Your task to perform on an android device: Go to battery settings Image 0: 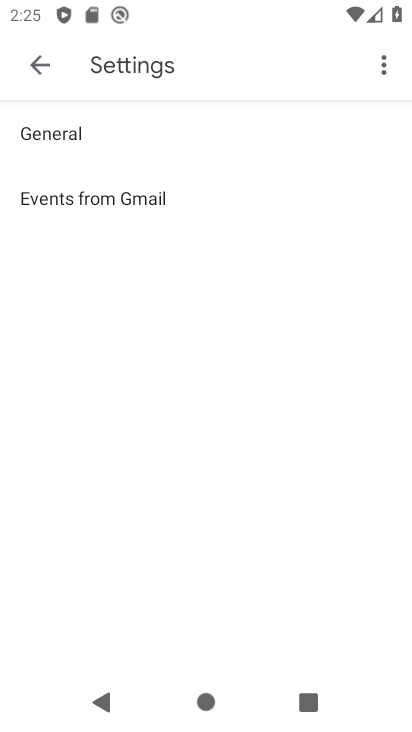
Step 0: press home button
Your task to perform on an android device: Go to battery settings Image 1: 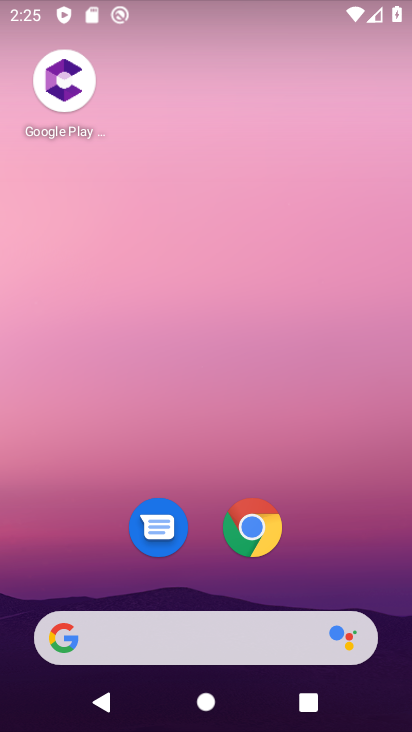
Step 1: drag from (258, 636) to (297, 19)
Your task to perform on an android device: Go to battery settings Image 2: 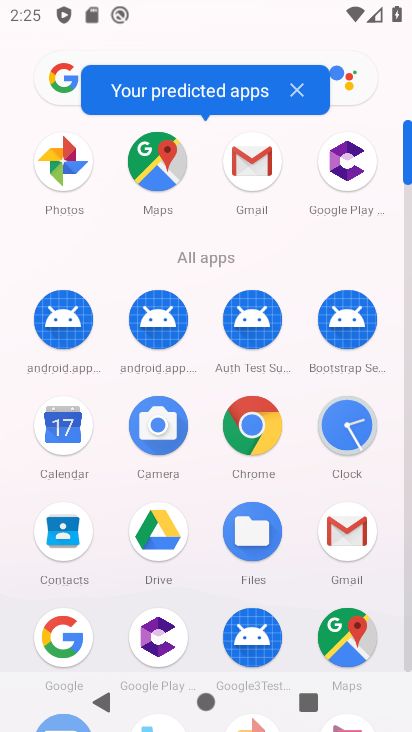
Step 2: drag from (294, 560) to (301, 114)
Your task to perform on an android device: Go to battery settings Image 3: 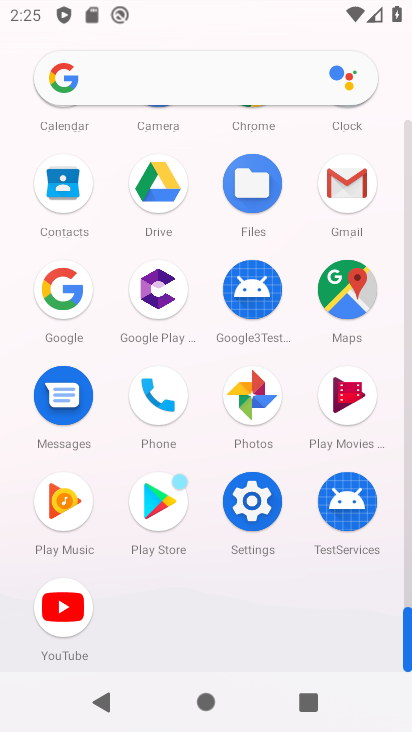
Step 3: click (237, 516)
Your task to perform on an android device: Go to battery settings Image 4: 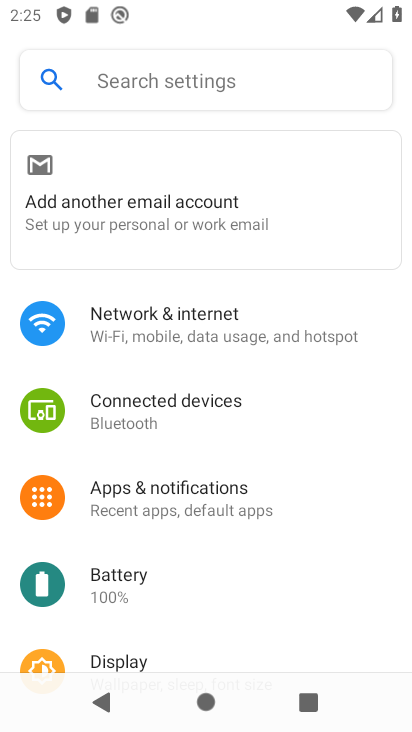
Step 4: click (161, 573)
Your task to perform on an android device: Go to battery settings Image 5: 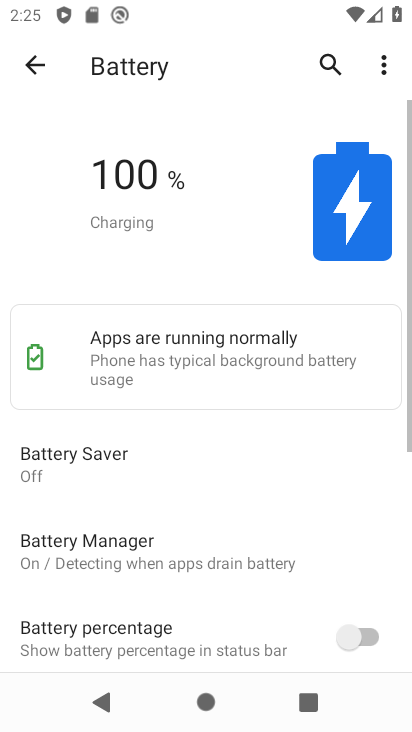
Step 5: task complete